Your task to perform on an android device: Open notification settings Image 0: 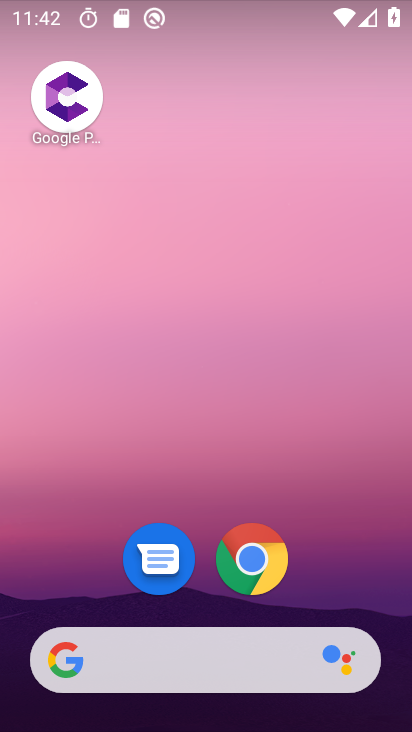
Step 0: drag from (343, 546) to (339, 199)
Your task to perform on an android device: Open notification settings Image 1: 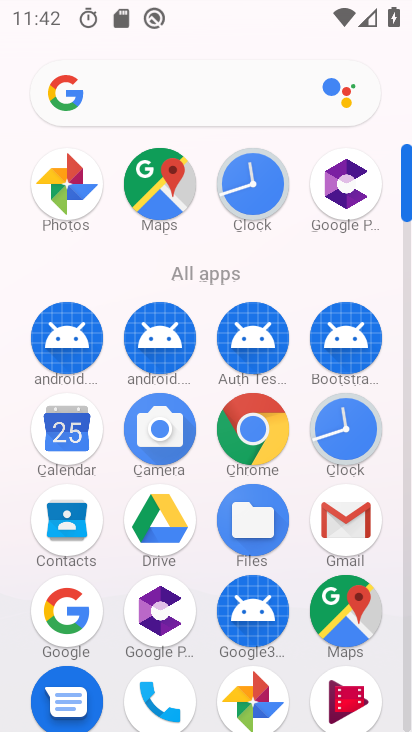
Step 1: drag from (234, 682) to (282, 344)
Your task to perform on an android device: Open notification settings Image 2: 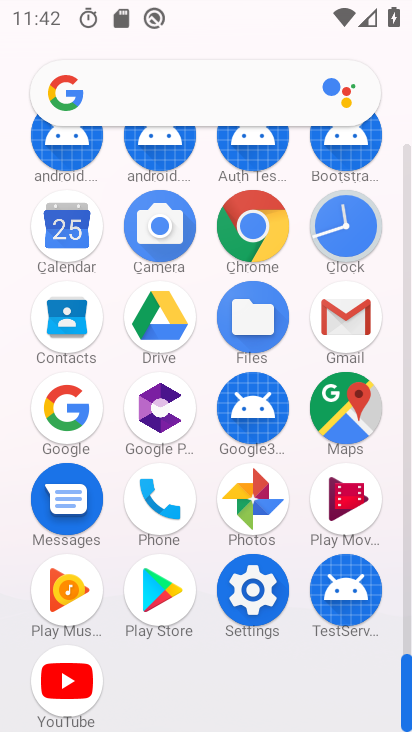
Step 2: click (268, 599)
Your task to perform on an android device: Open notification settings Image 3: 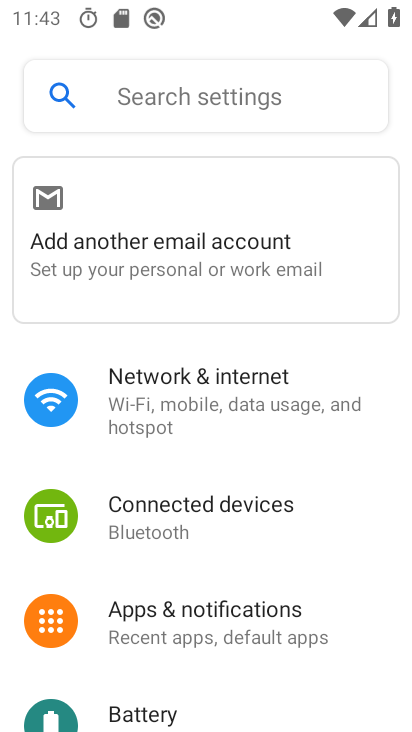
Step 3: drag from (241, 670) to (224, 365)
Your task to perform on an android device: Open notification settings Image 4: 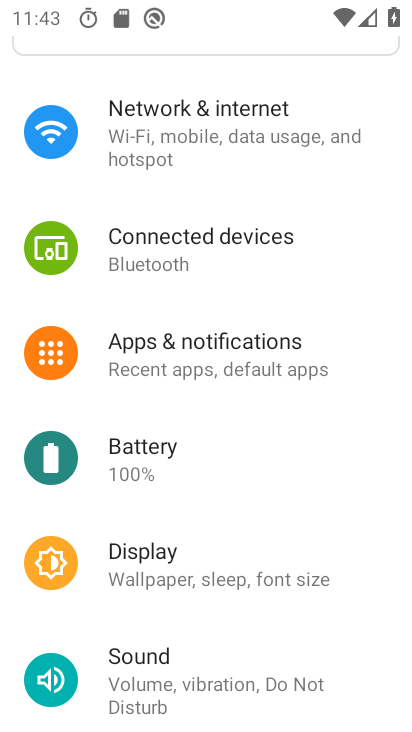
Step 4: click (206, 353)
Your task to perform on an android device: Open notification settings Image 5: 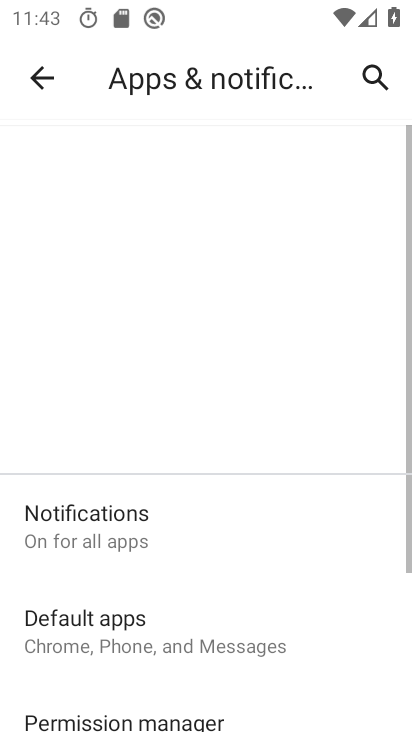
Step 5: click (179, 517)
Your task to perform on an android device: Open notification settings Image 6: 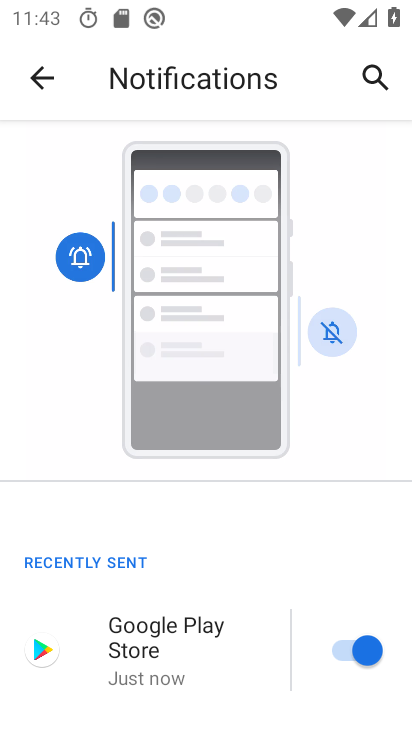
Step 6: task complete